Your task to perform on an android device: visit the assistant section in the google photos Image 0: 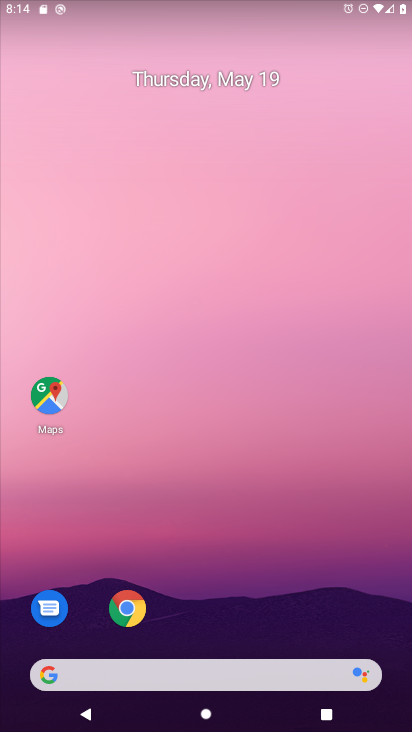
Step 0: drag from (389, 685) to (360, 322)
Your task to perform on an android device: visit the assistant section in the google photos Image 1: 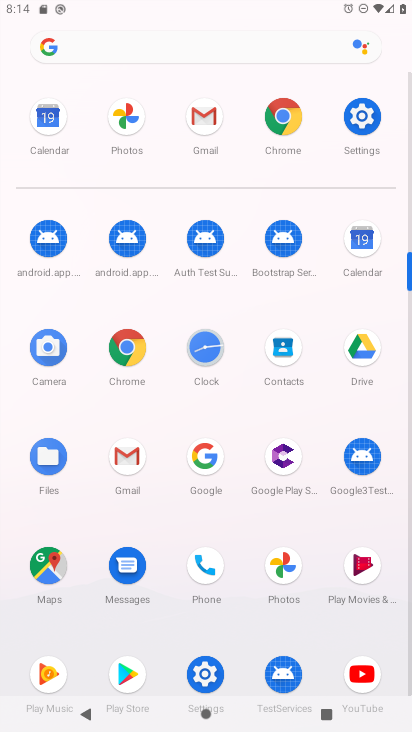
Step 1: click (283, 551)
Your task to perform on an android device: visit the assistant section in the google photos Image 2: 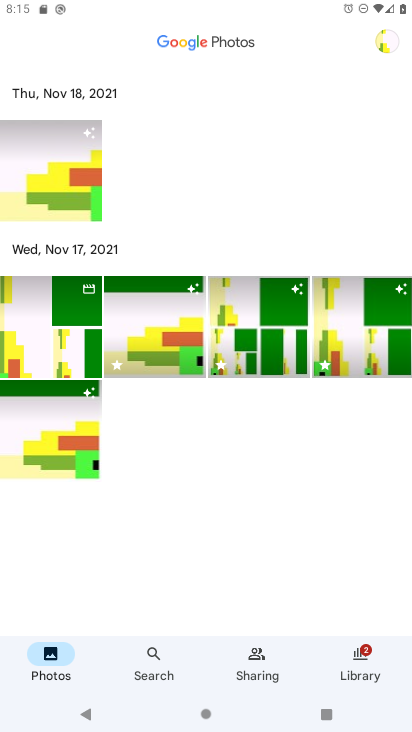
Step 2: task complete